Your task to perform on an android device: change alarm snooze length Image 0: 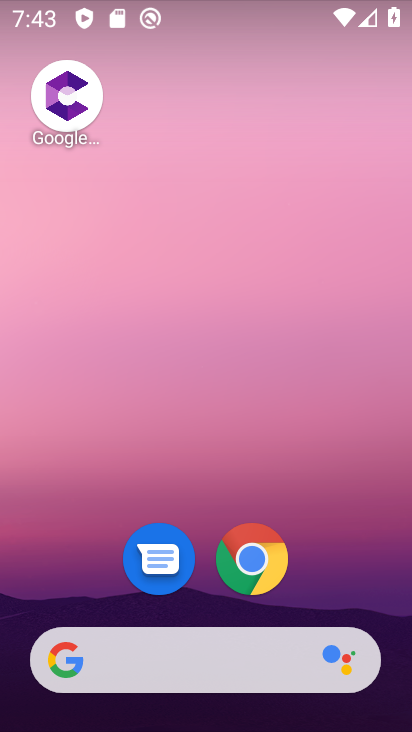
Step 0: drag from (294, 591) to (242, 14)
Your task to perform on an android device: change alarm snooze length Image 1: 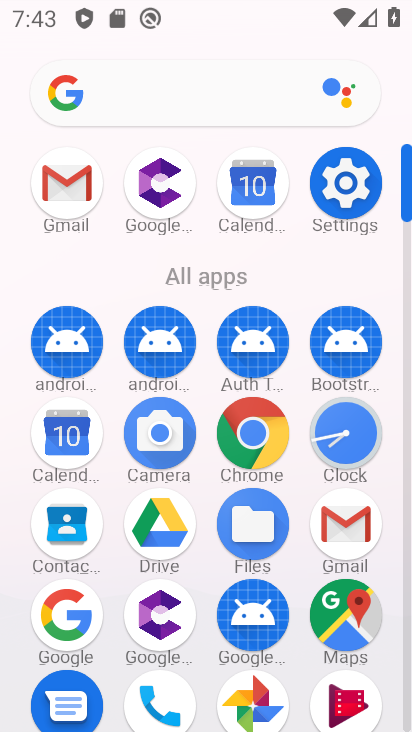
Step 1: click (344, 453)
Your task to perform on an android device: change alarm snooze length Image 2: 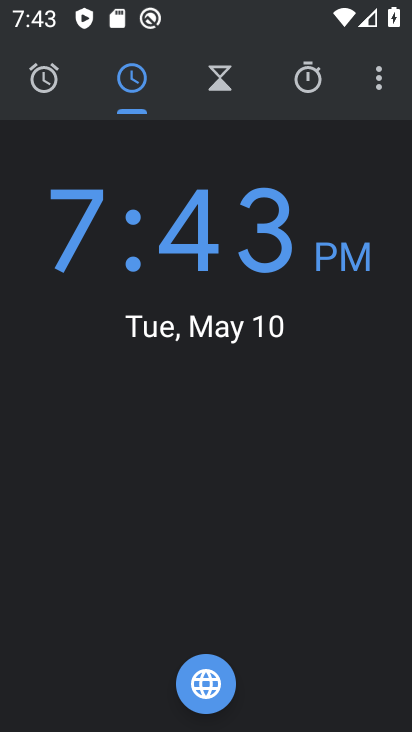
Step 2: click (372, 87)
Your task to perform on an android device: change alarm snooze length Image 3: 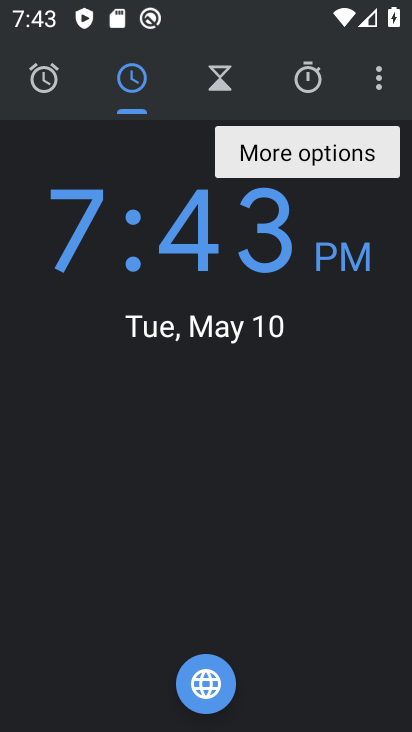
Step 3: click (369, 80)
Your task to perform on an android device: change alarm snooze length Image 4: 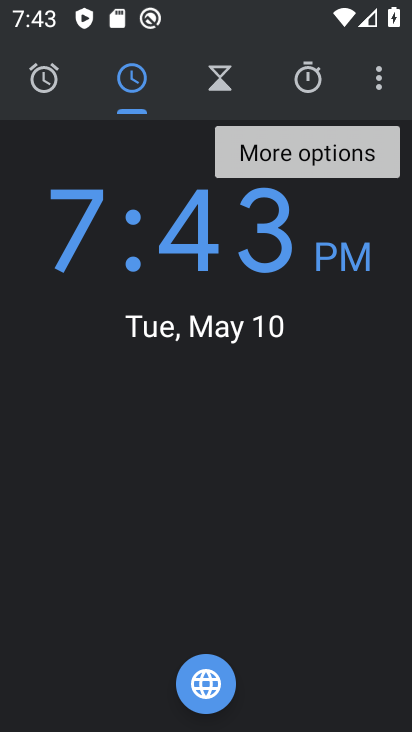
Step 4: click (369, 80)
Your task to perform on an android device: change alarm snooze length Image 5: 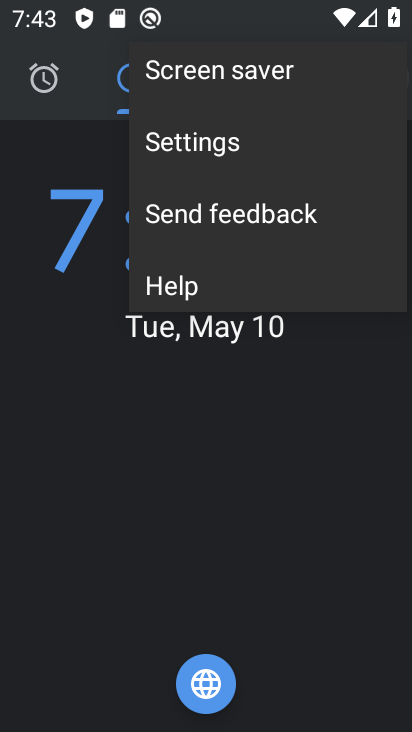
Step 5: click (371, 82)
Your task to perform on an android device: change alarm snooze length Image 6: 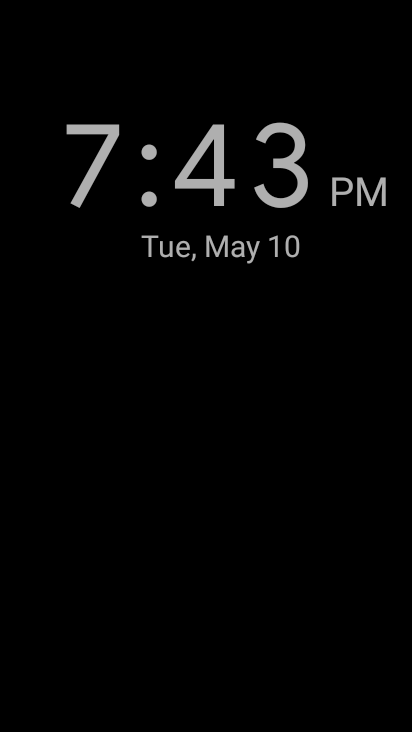
Step 6: press back button
Your task to perform on an android device: change alarm snooze length Image 7: 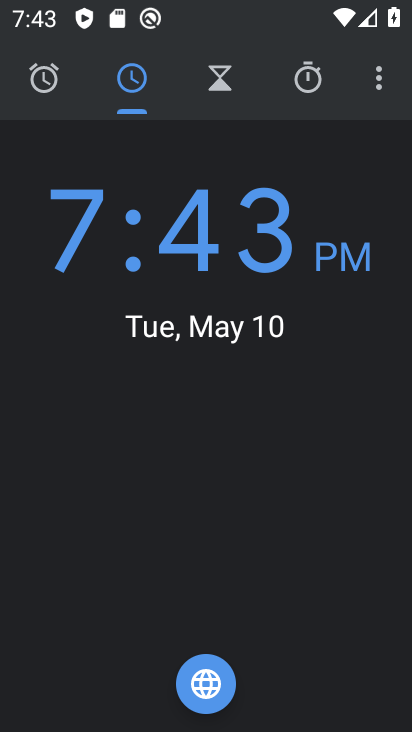
Step 7: click (381, 85)
Your task to perform on an android device: change alarm snooze length Image 8: 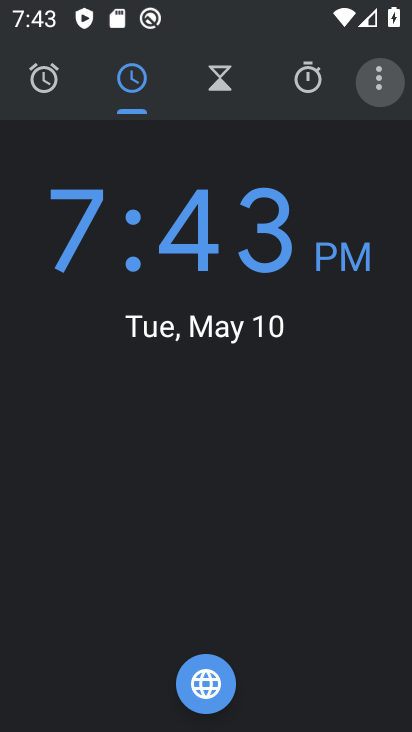
Step 8: click (381, 85)
Your task to perform on an android device: change alarm snooze length Image 9: 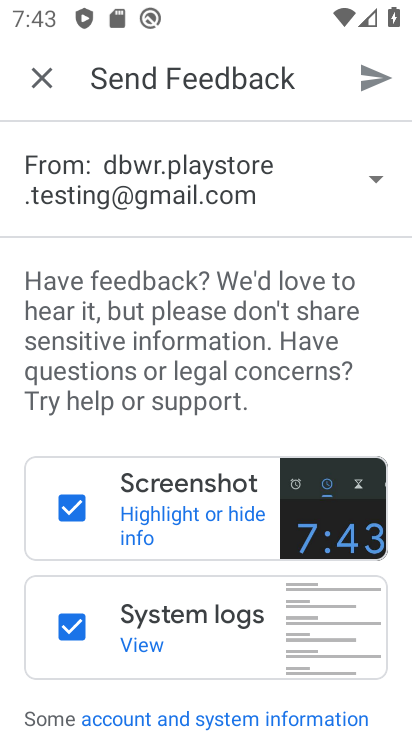
Step 9: click (39, 73)
Your task to perform on an android device: change alarm snooze length Image 10: 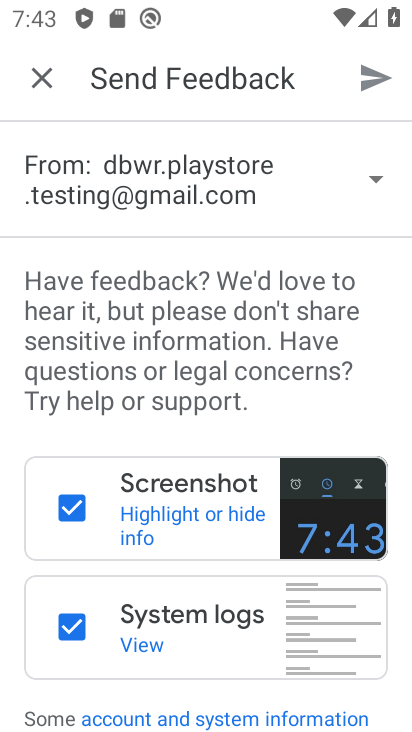
Step 10: click (32, 68)
Your task to perform on an android device: change alarm snooze length Image 11: 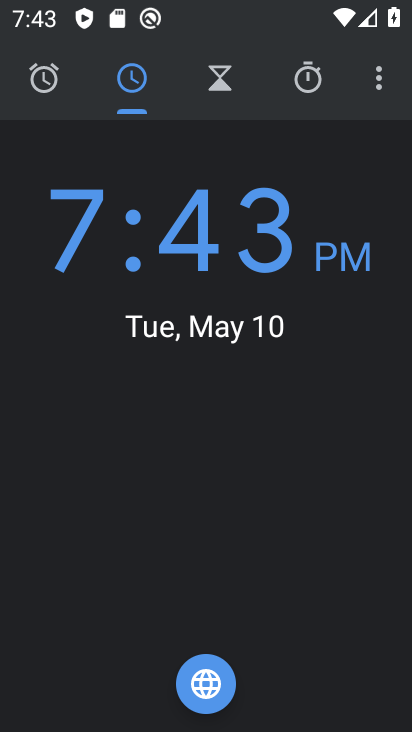
Step 11: click (380, 87)
Your task to perform on an android device: change alarm snooze length Image 12: 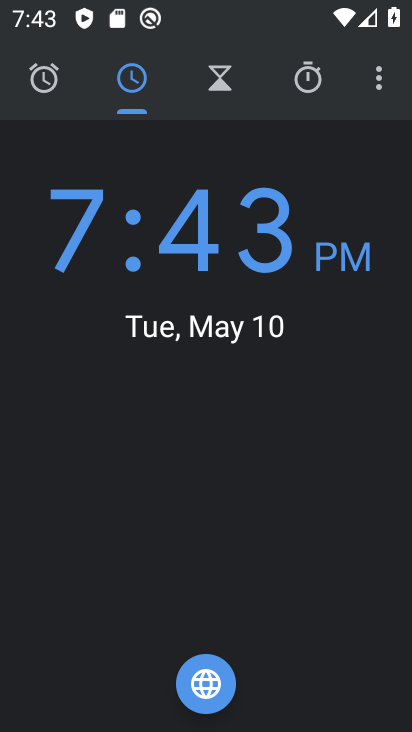
Step 12: click (375, 68)
Your task to perform on an android device: change alarm snooze length Image 13: 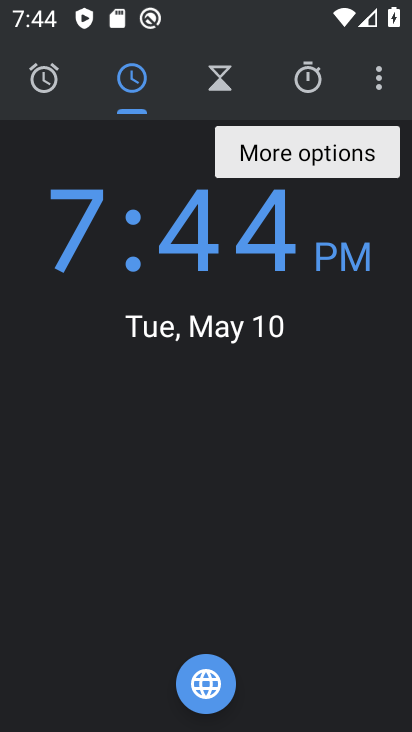
Step 13: click (382, 114)
Your task to perform on an android device: change alarm snooze length Image 14: 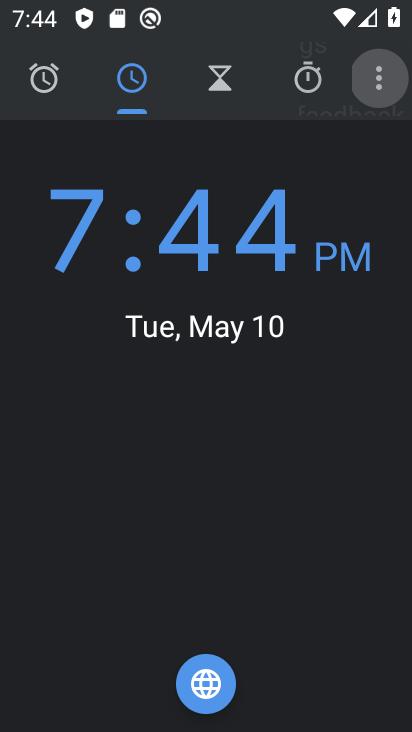
Step 14: click (384, 78)
Your task to perform on an android device: change alarm snooze length Image 15: 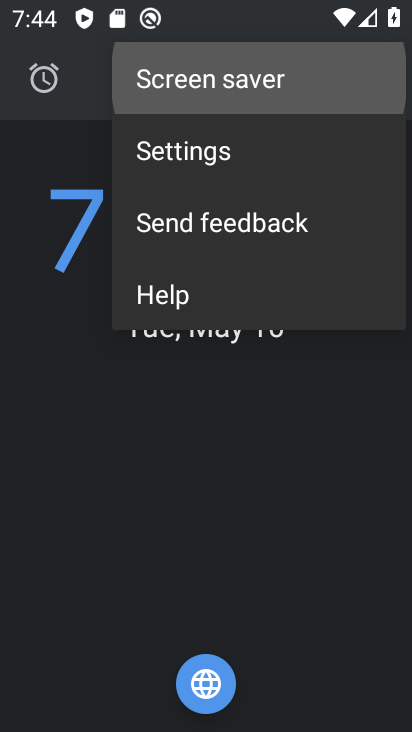
Step 15: click (384, 78)
Your task to perform on an android device: change alarm snooze length Image 16: 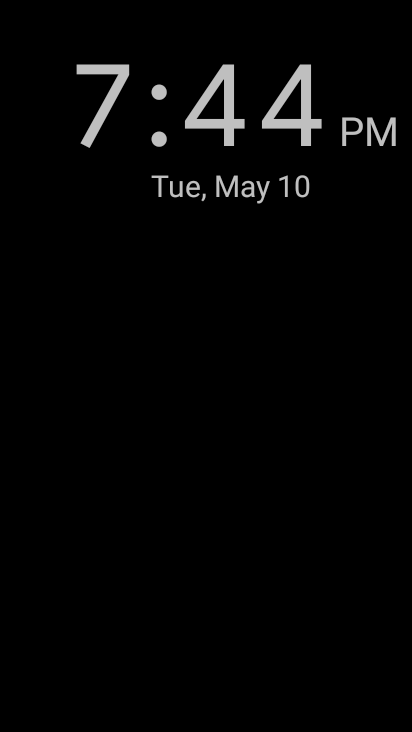
Step 16: press back button
Your task to perform on an android device: change alarm snooze length Image 17: 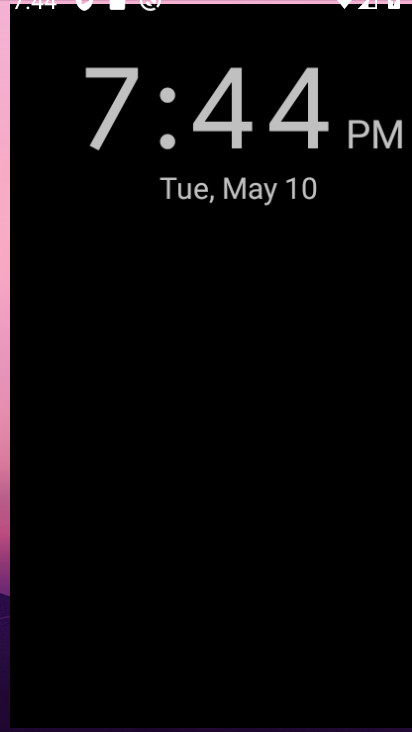
Step 17: press back button
Your task to perform on an android device: change alarm snooze length Image 18: 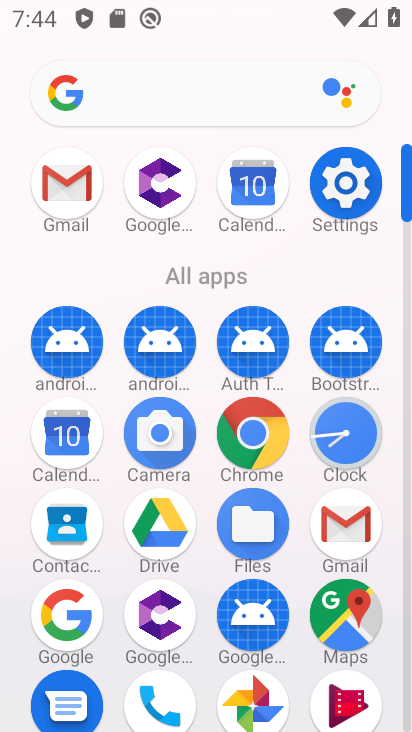
Step 18: click (346, 427)
Your task to perform on an android device: change alarm snooze length Image 19: 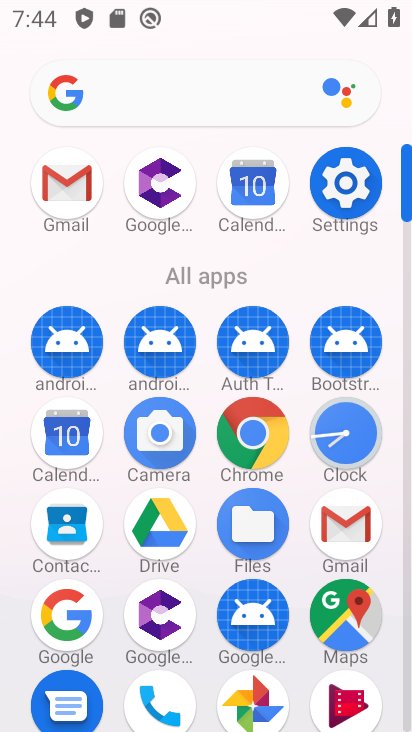
Step 19: click (327, 459)
Your task to perform on an android device: change alarm snooze length Image 20: 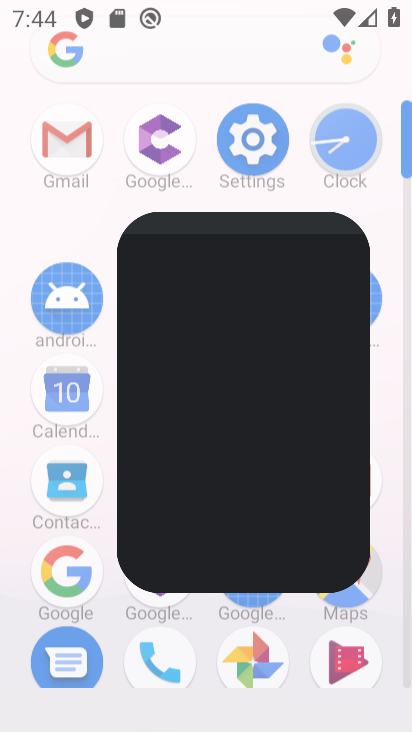
Step 20: click (327, 459)
Your task to perform on an android device: change alarm snooze length Image 21: 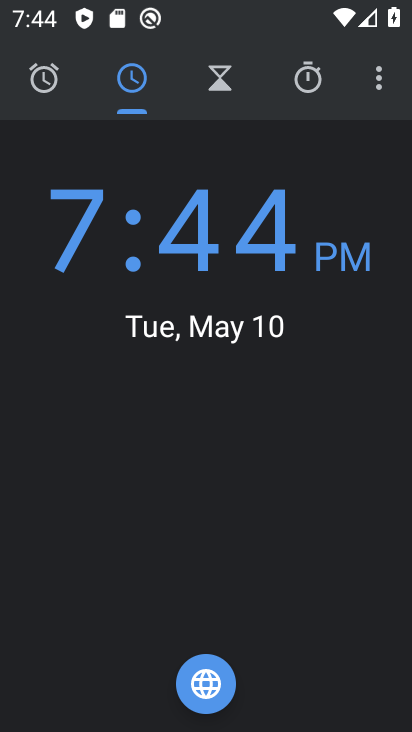
Step 21: click (379, 77)
Your task to perform on an android device: change alarm snooze length Image 22: 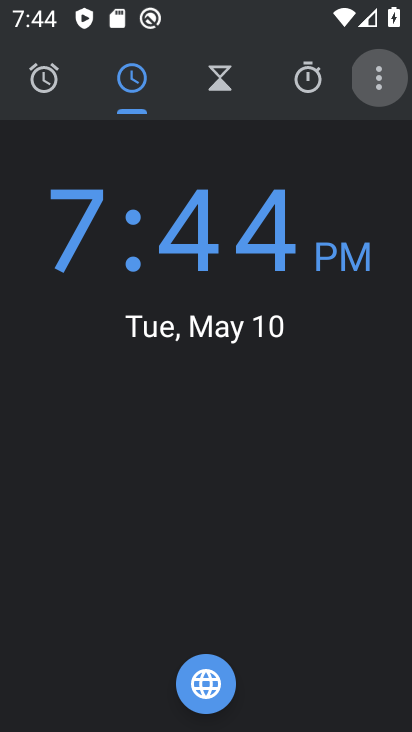
Step 22: click (380, 107)
Your task to perform on an android device: change alarm snooze length Image 23: 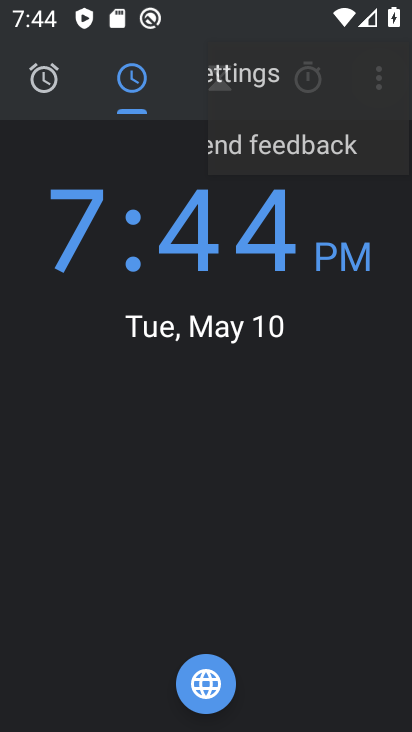
Step 23: click (380, 106)
Your task to perform on an android device: change alarm snooze length Image 24: 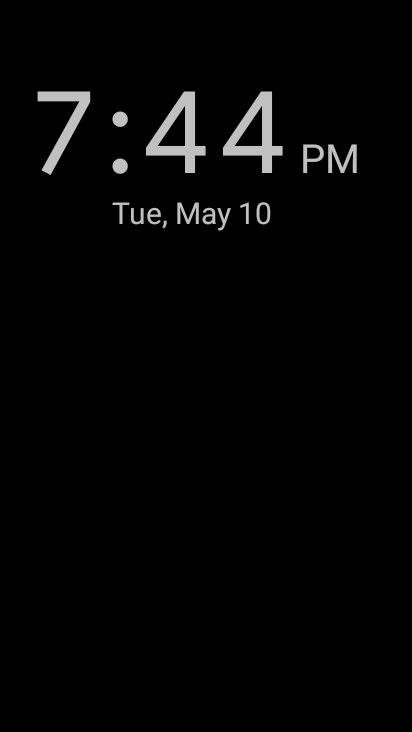
Step 24: press back button
Your task to perform on an android device: change alarm snooze length Image 25: 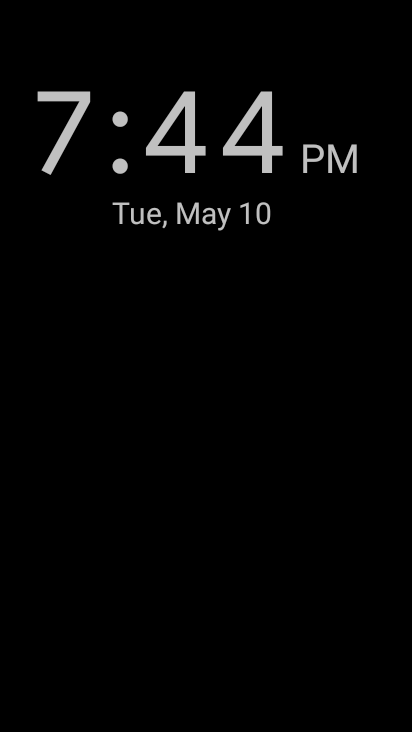
Step 25: press back button
Your task to perform on an android device: change alarm snooze length Image 26: 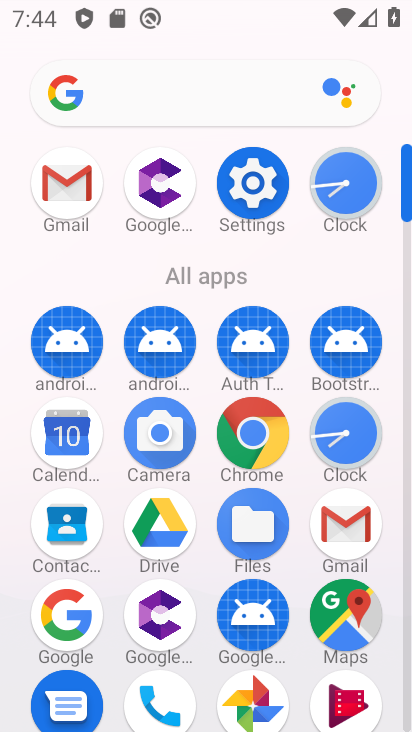
Step 26: click (344, 188)
Your task to perform on an android device: change alarm snooze length Image 27: 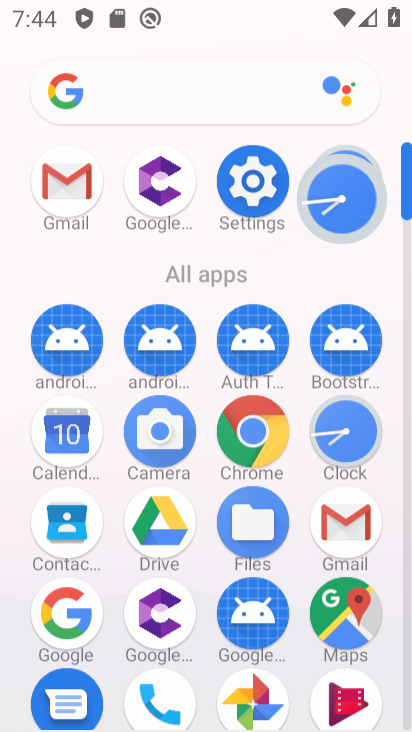
Step 27: click (343, 187)
Your task to perform on an android device: change alarm snooze length Image 28: 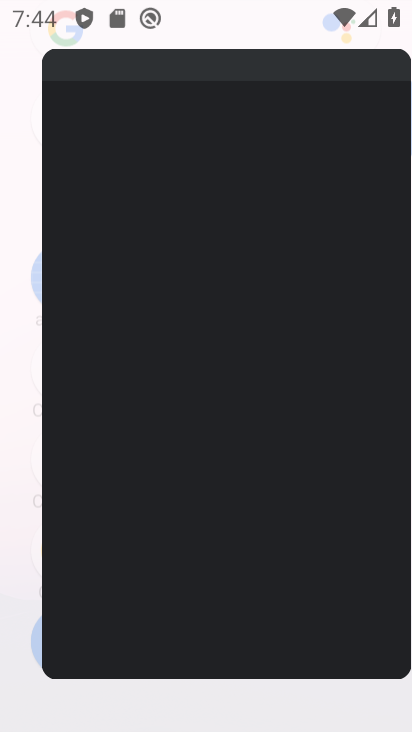
Step 28: click (343, 187)
Your task to perform on an android device: change alarm snooze length Image 29: 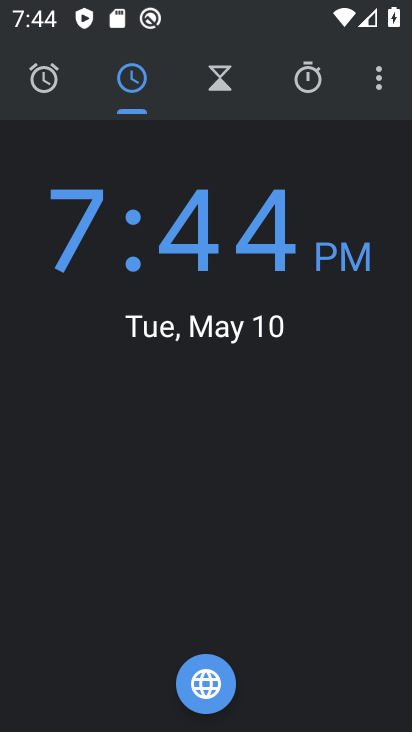
Step 29: click (377, 82)
Your task to perform on an android device: change alarm snooze length Image 30: 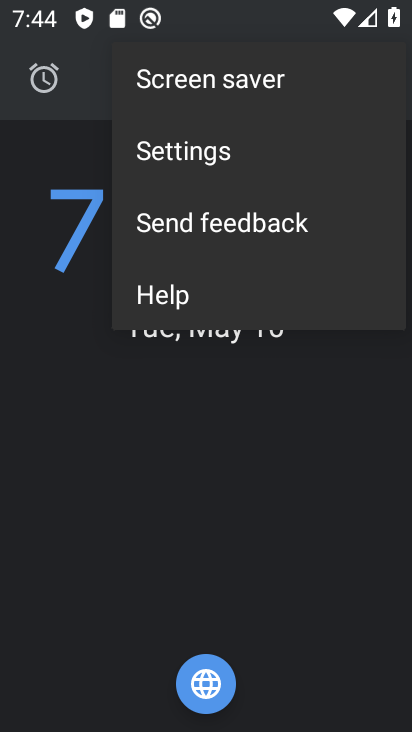
Step 30: click (201, 145)
Your task to perform on an android device: change alarm snooze length Image 31: 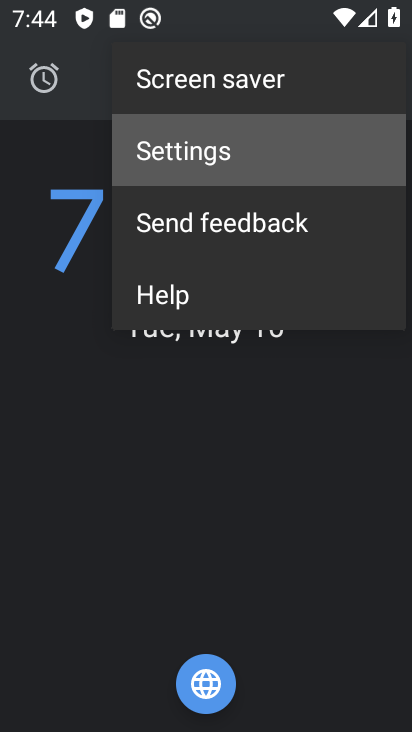
Step 31: click (200, 146)
Your task to perform on an android device: change alarm snooze length Image 32: 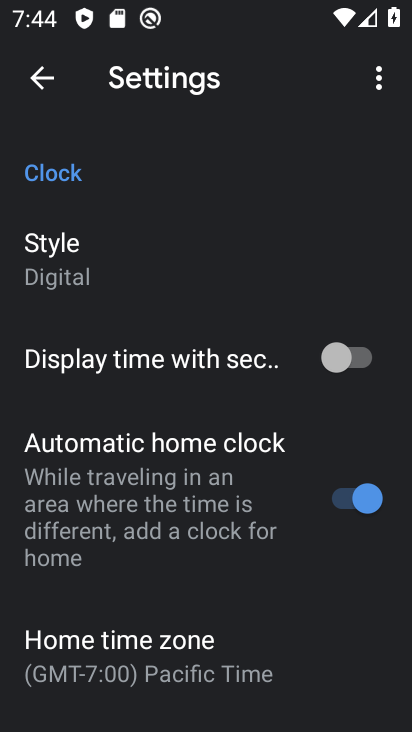
Step 32: drag from (166, 525) to (131, 5)
Your task to perform on an android device: change alarm snooze length Image 33: 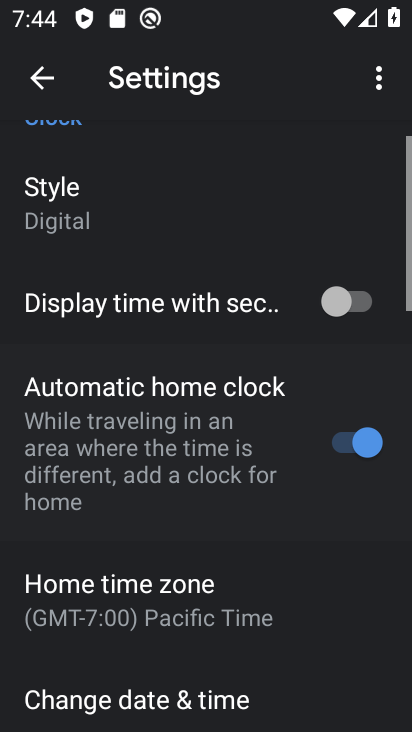
Step 33: drag from (175, 469) to (113, 42)
Your task to perform on an android device: change alarm snooze length Image 34: 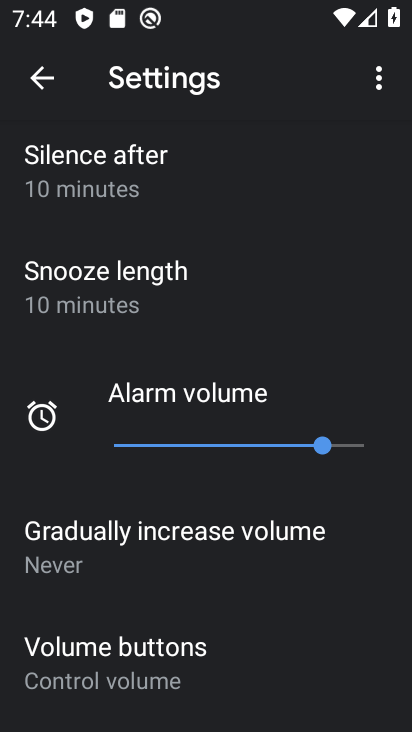
Step 34: drag from (172, 502) to (158, 4)
Your task to perform on an android device: change alarm snooze length Image 35: 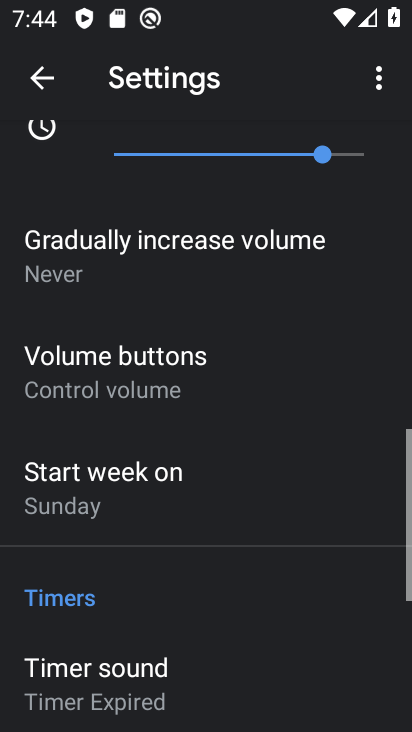
Step 35: drag from (188, 623) to (181, 19)
Your task to perform on an android device: change alarm snooze length Image 36: 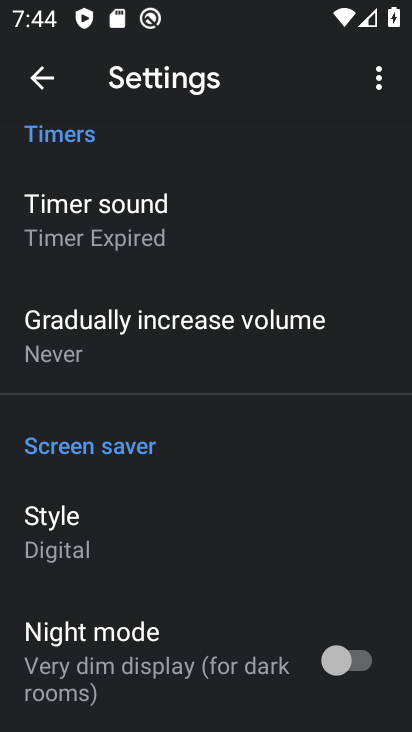
Step 36: drag from (170, 257) to (234, 687)
Your task to perform on an android device: change alarm snooze length Image 37: 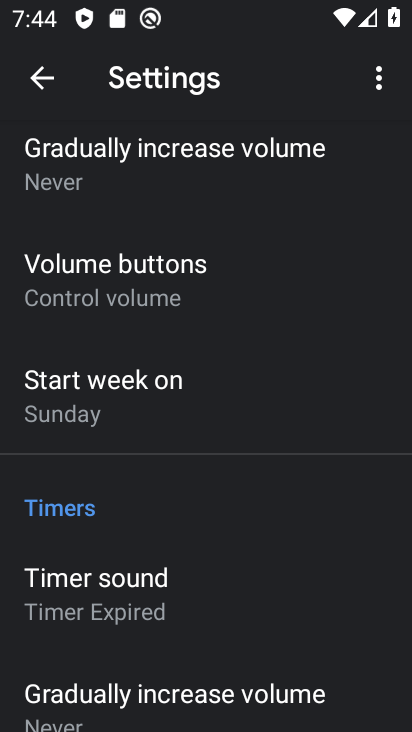
Step 37: drag from (170, 265) to (215, 538)
Your task to perform on an android device: change alarm snooze length Image 38: 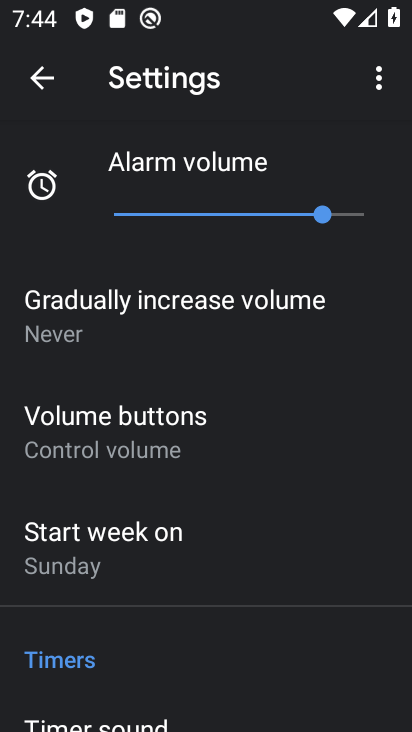
Step 38: drag from (142, 229) to (202, 591)
Your task to perform on an android device: change alarm snooze length Image 39: 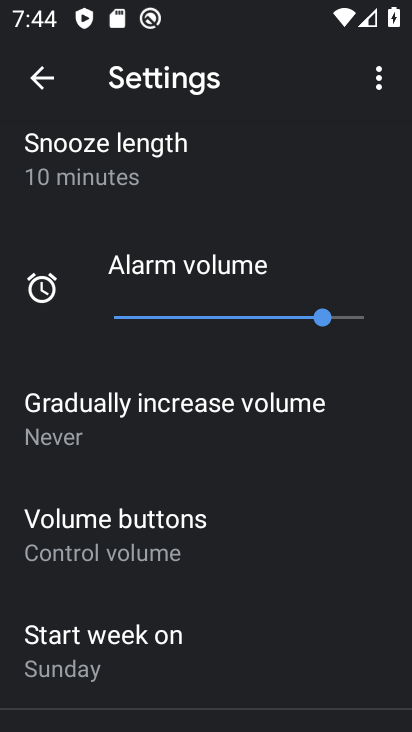
Step 39: click (85, 174)
Your task to perform on an android device: change alarm snooze length Image 40: 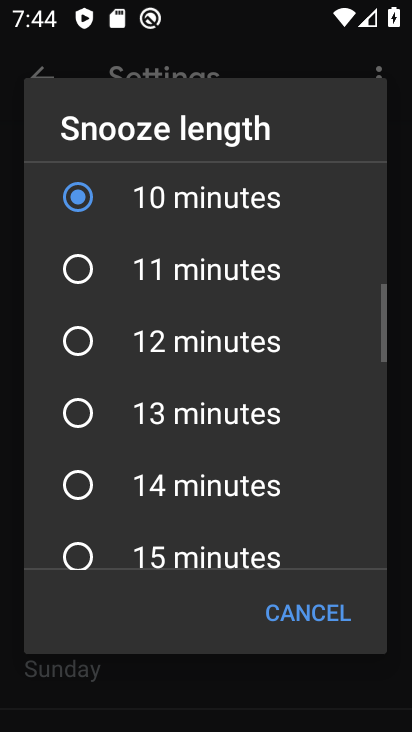
Step 40: click (74, 265)
Your task to perform on an android device: change alarm snooze length Image 41: 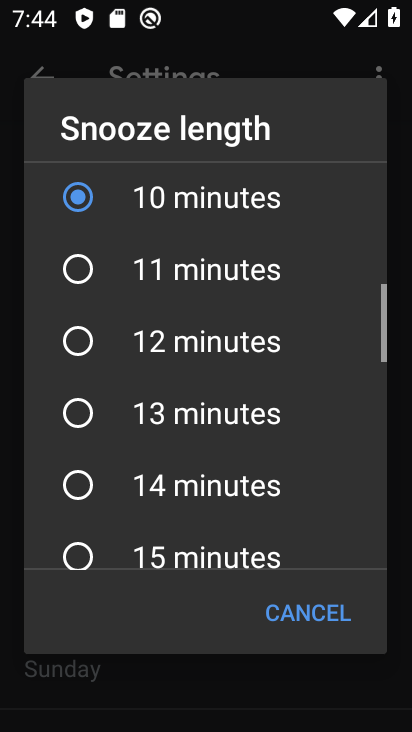
Step 41: click (73, 264)
Your task to perform on an android device: change alarm snooze length Image 42: 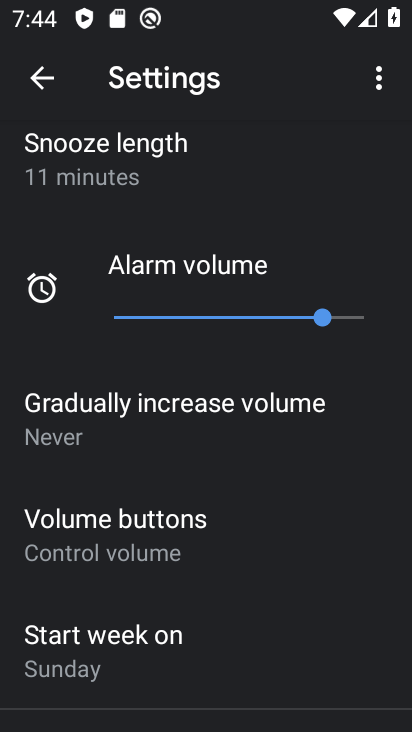
Step 42: task complete